Your task to perform on an android device: install app "Duolingo: language lessons" Image 0: 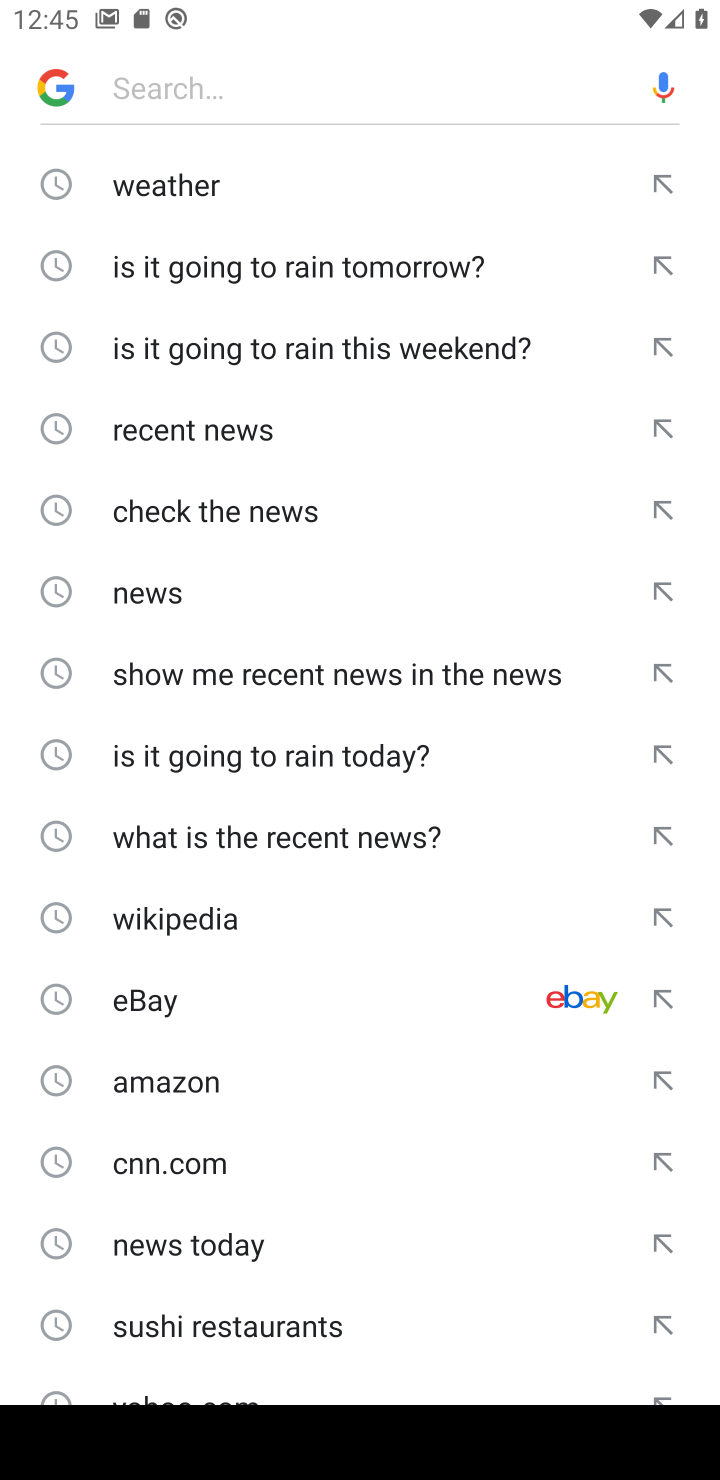
Step 0: press home button
Your task to perform on an android device: install app "Duolingo: language lessons" Image 1: 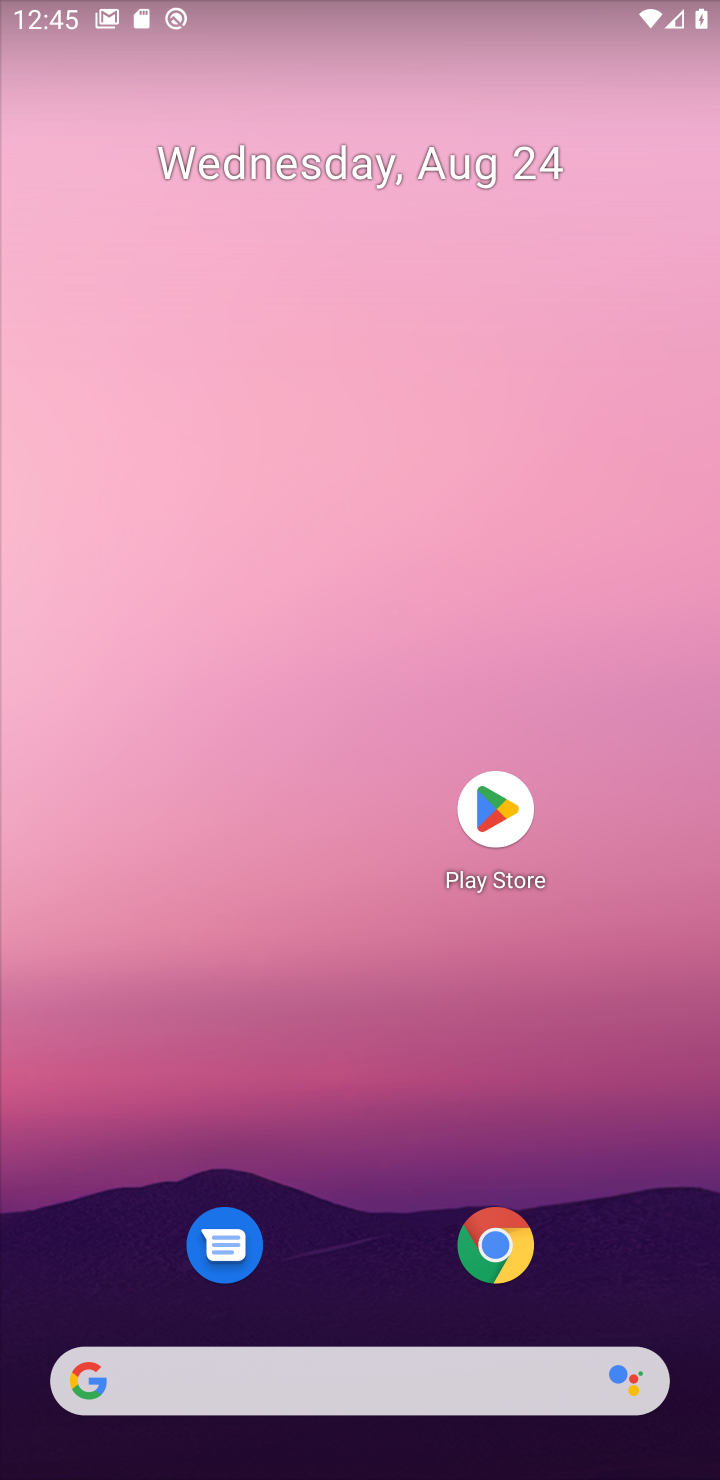
Step 1: click (497, 810)
Your task to perform on an android device: install app "Duolingo: language lessons" Image 2: 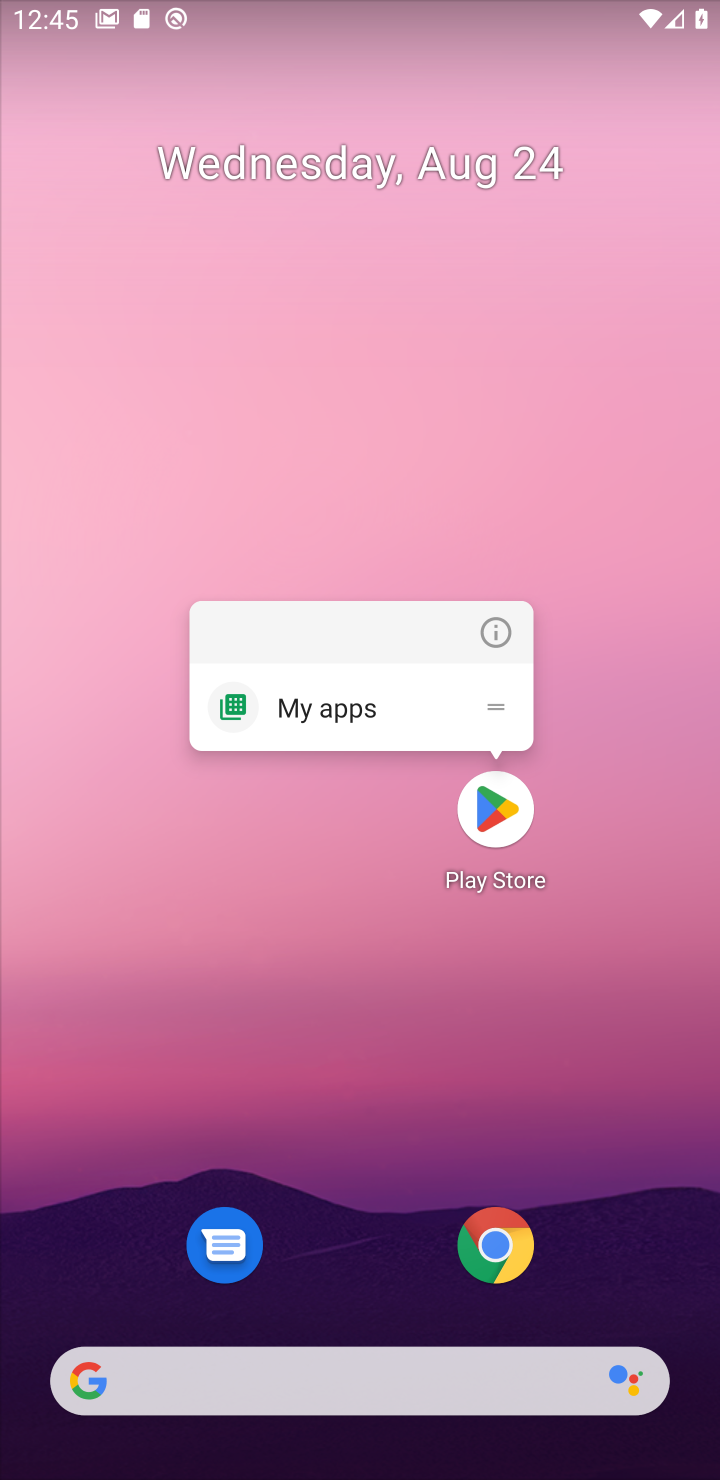
Step 2: click (501, 814)
Your task to perform on an android device: install app "Duolingo: language lessons" Image 3: 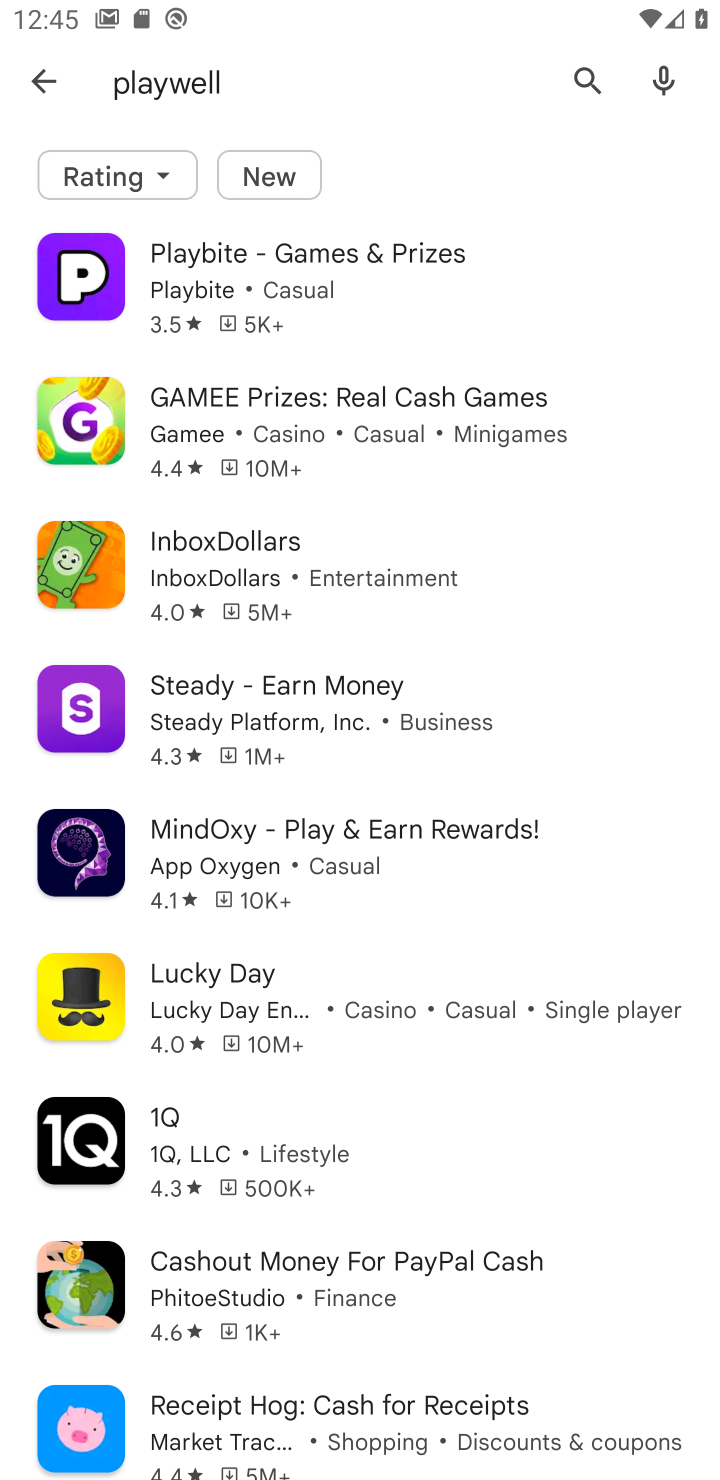
Step 3: click (586, 62)
Your task to perform on an android device: install app "Duolingo: language lessons" Image 4: 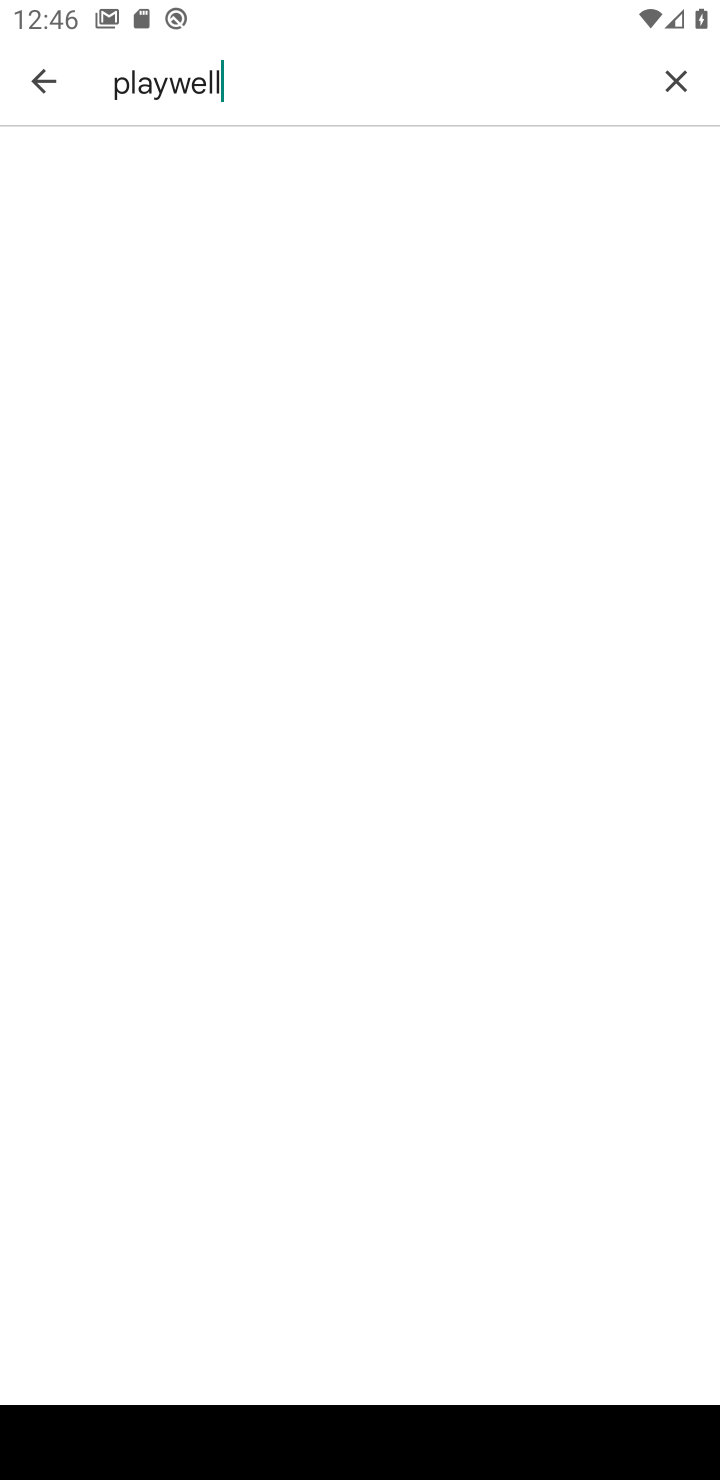
Step 4: click (679, 73)
Your task to perform on an android device: install app "Duolingo: language lessons" Image 5: 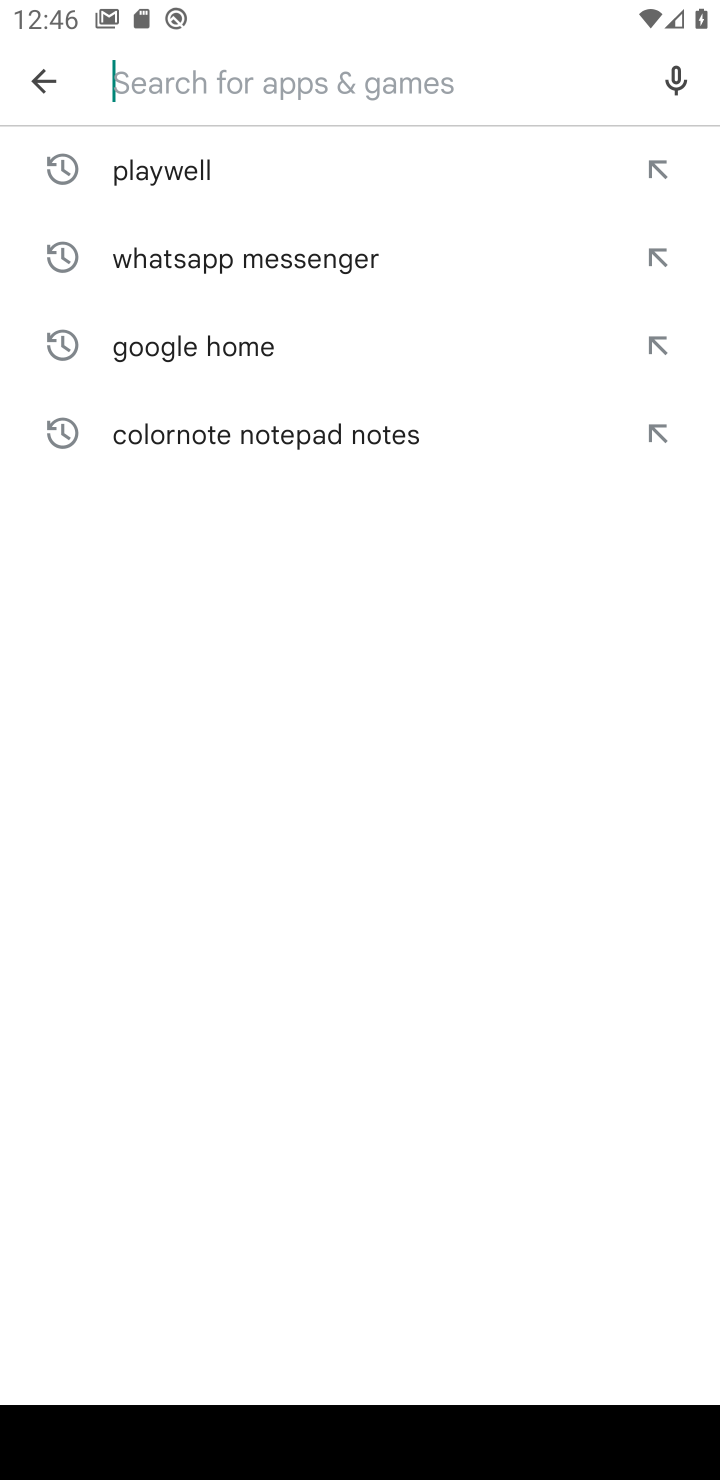
Step 5: type "Duolingo: language lessons"
Your task to perform on an android device: install app "Duolingo: language lessons" Image 6: 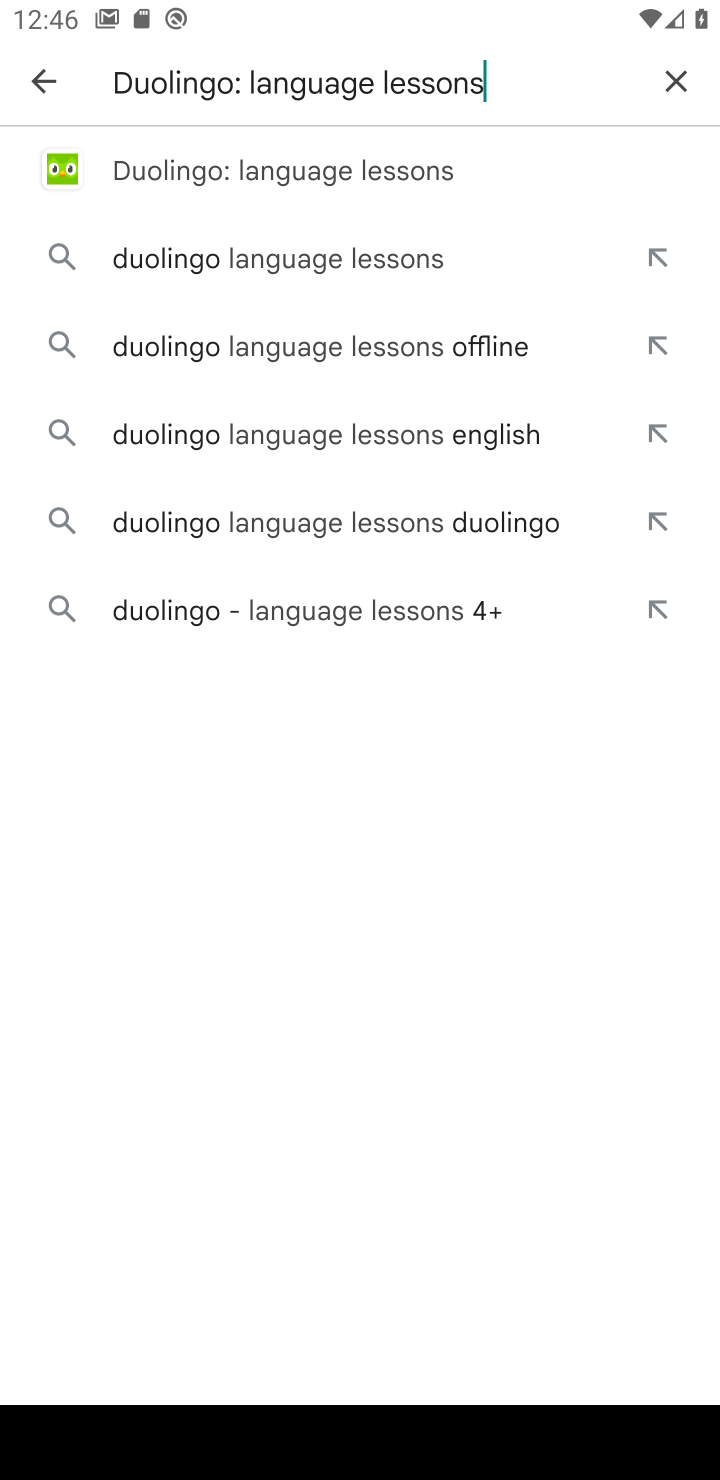
Step 6: click (339, 170)
Your task to perform on an android device: install app "Duolingo: language lessons" Image 7: 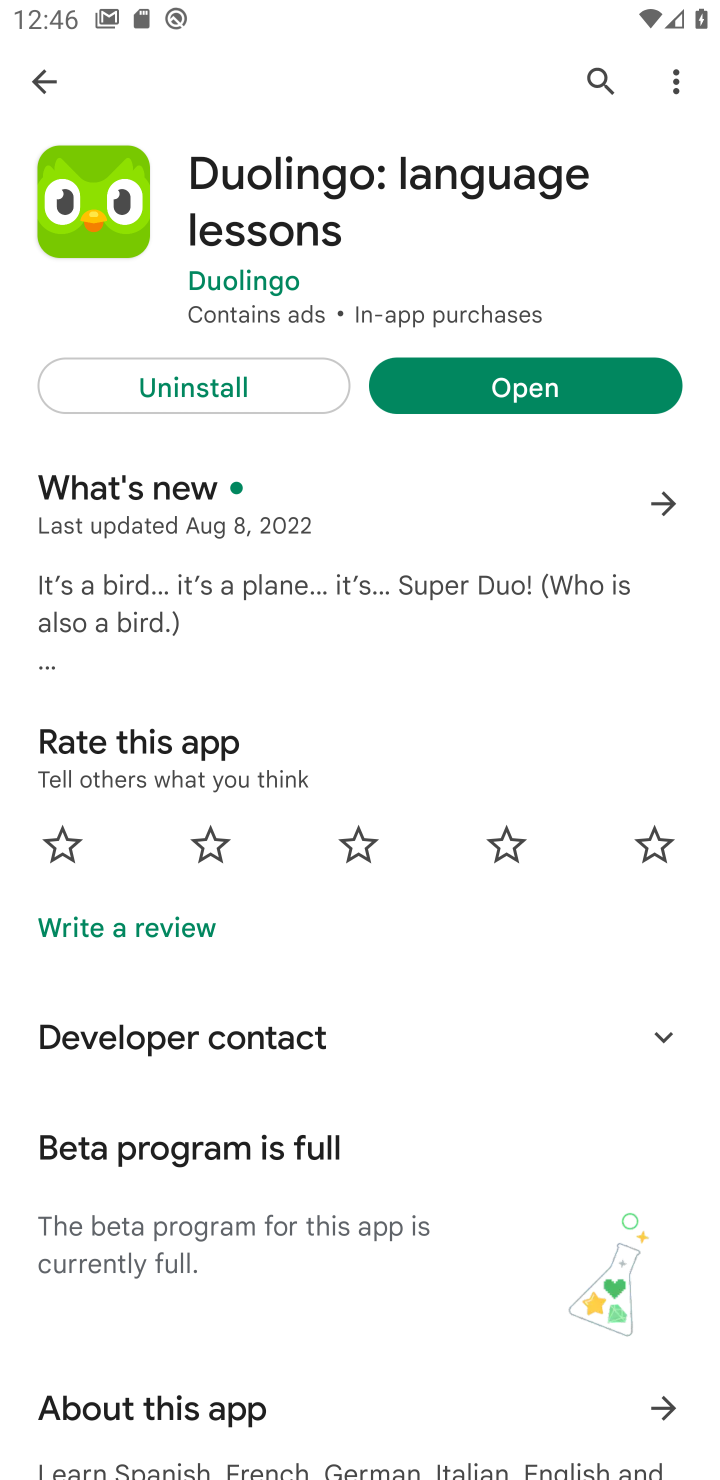
Step 7: task complete